Your task to perform on an android device: Go to notification settings Image 0: 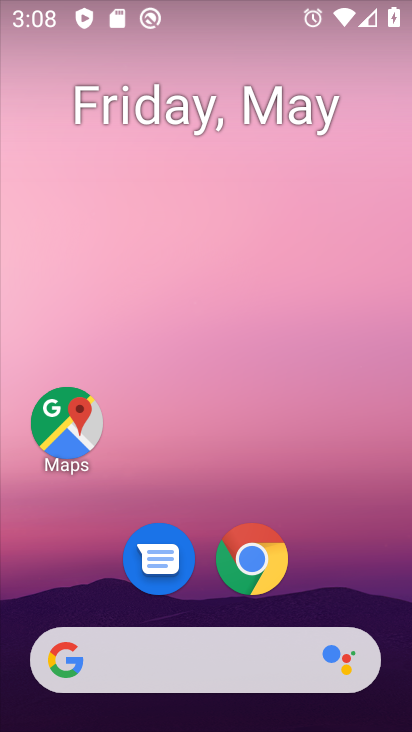
Step 0: drag from (386, 602) to (350, 307)
Your task to perform on an android device: Go to notification settings Image 1: 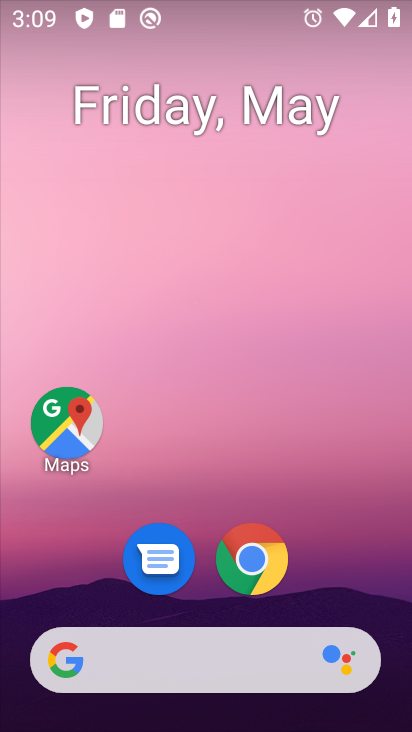
Step 1: drag from (322, 596) to (275, 141)
Your task to perform on an android device: Go to notification settings Image 2: 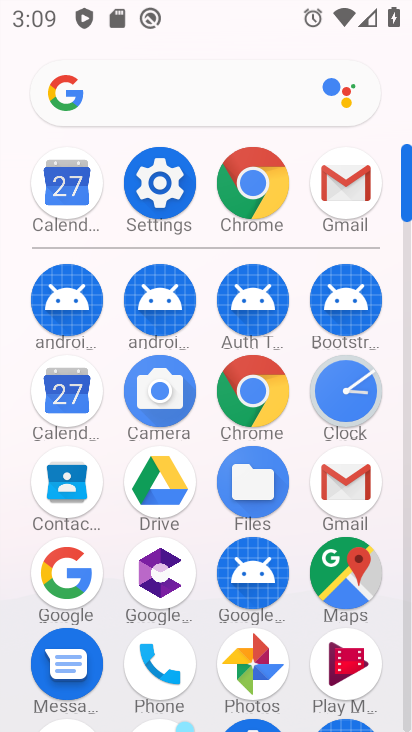
Step 2: click (167, 205)
Your task to perform on an android device: Go to notification settings Image 3: 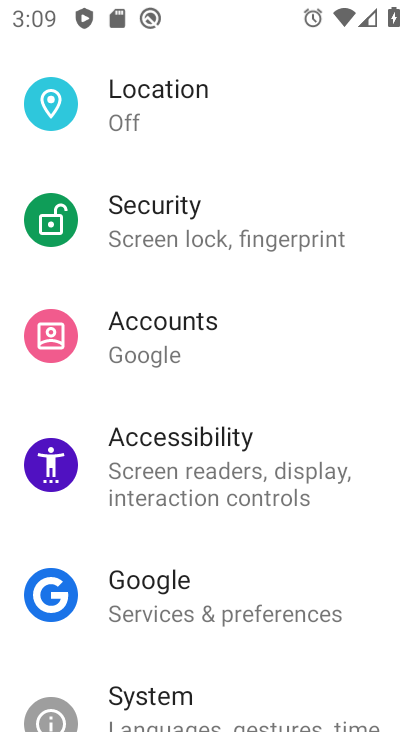
Step 3: drag from (211, 205) to (257, 715)
Your task to perform on an android device: Go to notification settings Image 4: 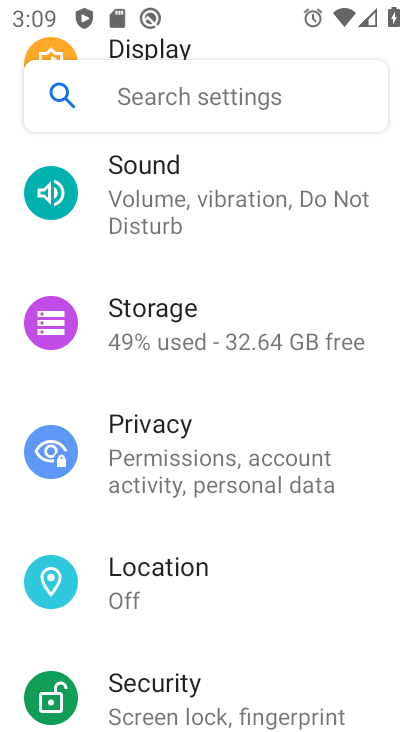
Step 4: drag from (235, 268) to (286, 710)
Your task to perform on an android device: Go to notification settings Image 5: 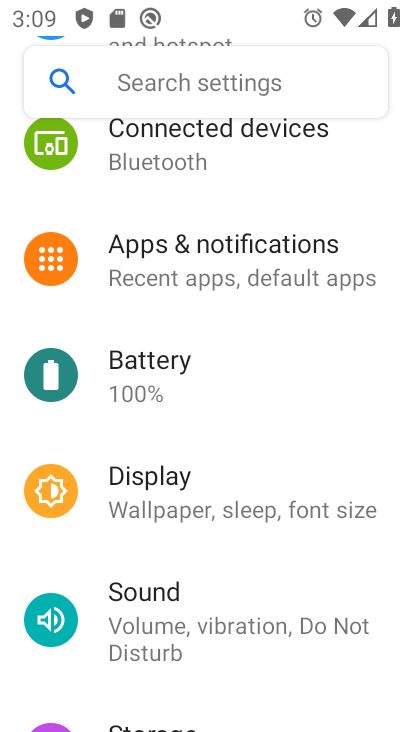
Step 5: click (227, 260)
Your task to perform on an android device: Go to notification settings Image 6: 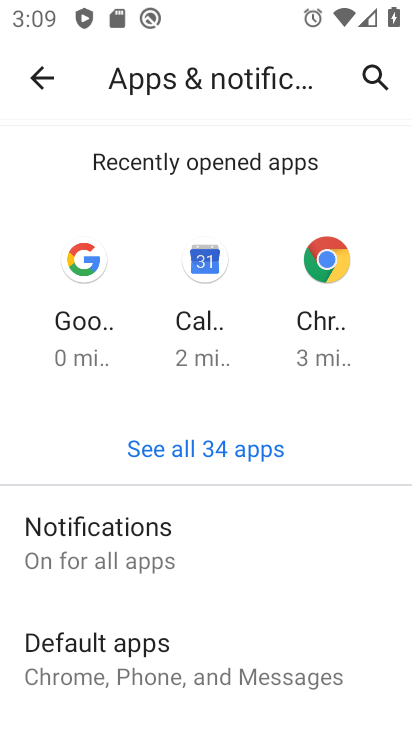
Step 6: task complete